Your task to perform on an android device: Find coffee shops on Maps Image 0: 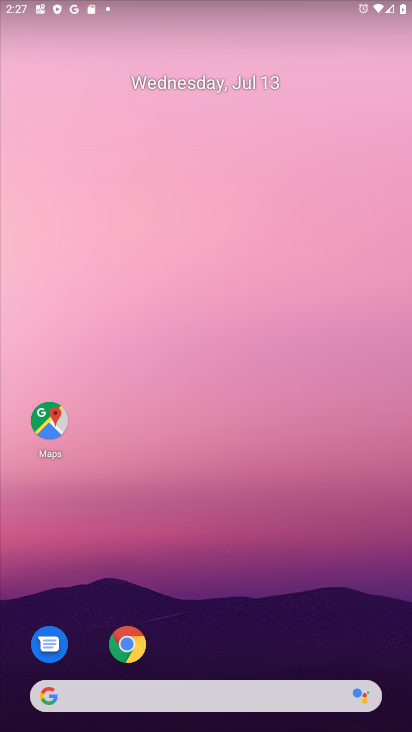
Step 0: drag from (229, 658) to (307, 356)
Your task to perform on an android device: Find coffee shops on Maps Image 1: 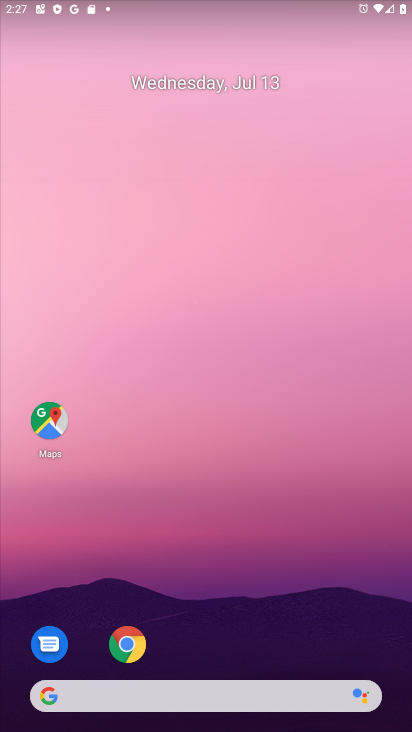
Step 1: drag from (191, 678) to (198, 43)
Your task to perform on an android device: Find coffee shops on Maps Image 2: 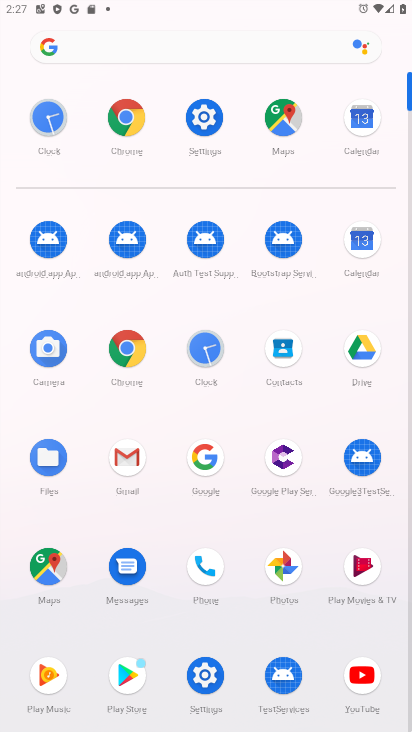
Step 2: click (28, 572)
Your task to perform on an android device: Find coffee shops on Maps Image 3: 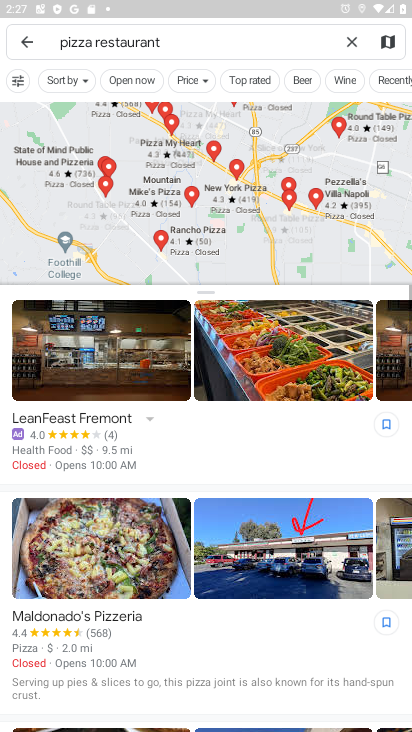
Step 3: click (350, 48)
Your task to perform on an android device: Find coffee shops on Maps Image 4: 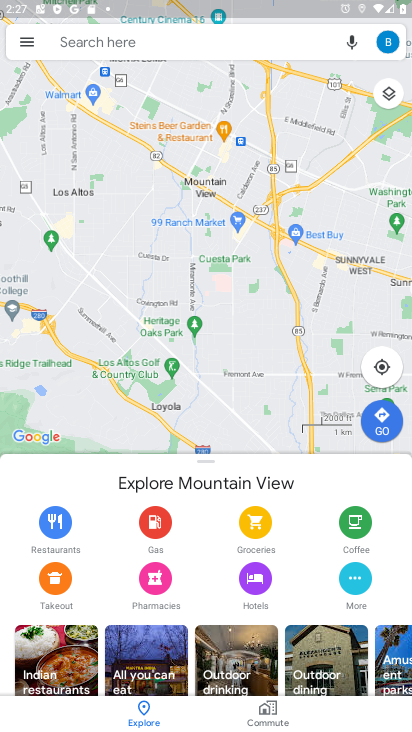
Step 4: click (249, 49)
Your task to perform on an android device: Find coffee shops on Maps Image 5: 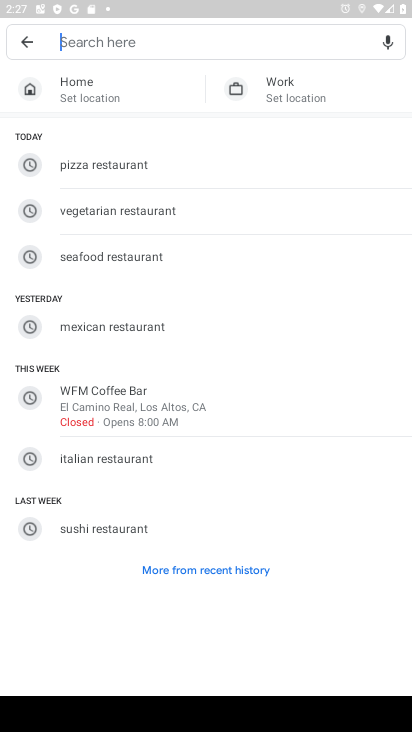
Step 5: type "coffee shops"
Your task to perform on an android device: Find coffee shops on Maps Image 6: 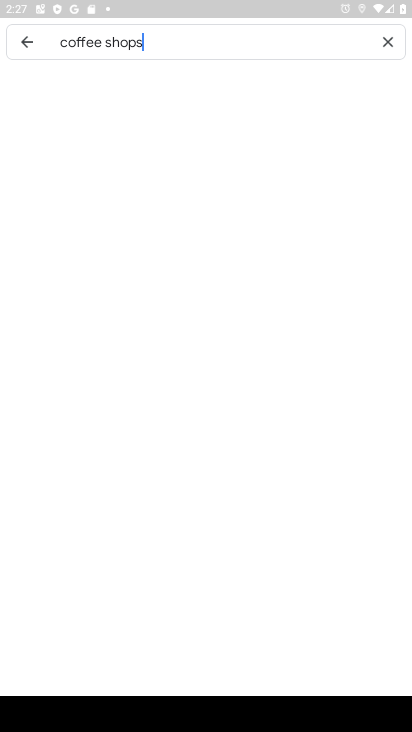
Step 6: type ""
Your task to perform on an android device: Find coffee shops on Maps Image 7: 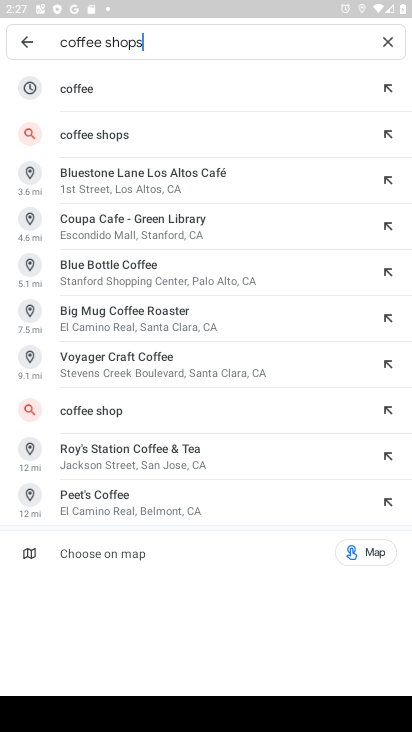
Step 7: click (89, 131)
Your task to perform on an android device: Find coffee shops on Maps Image 8: 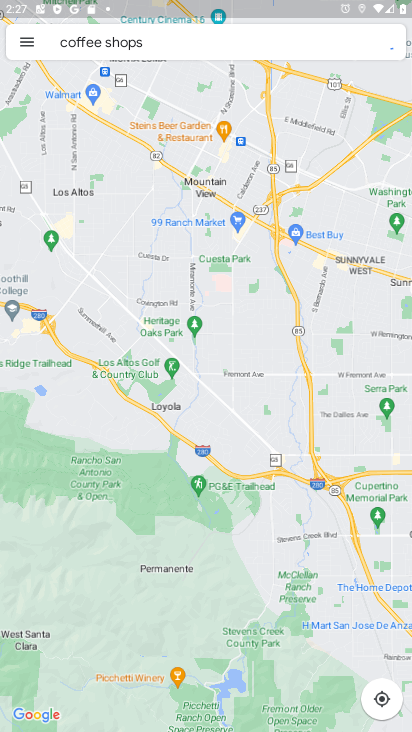
Step 8: task complete